Your task to perform on an android device: stop showing notifications on the lock screen Image 0: 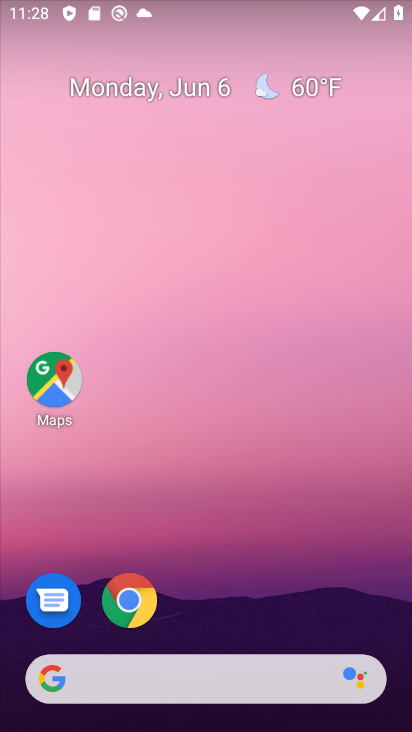
Step 0: drag from (215, 731) to (190, 31)
Your task to perform on an android device: stop showing notifications on the lock screen Image 1: 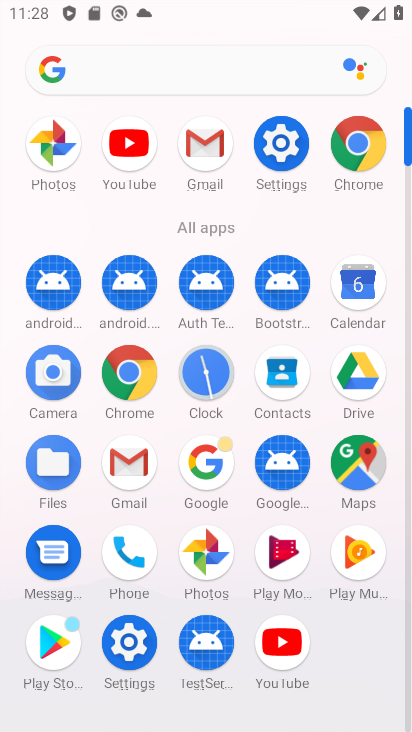
Step 1: click (137, 647)
Your task to perform on an android device: stop showing notifications on the lock screen Image 2: 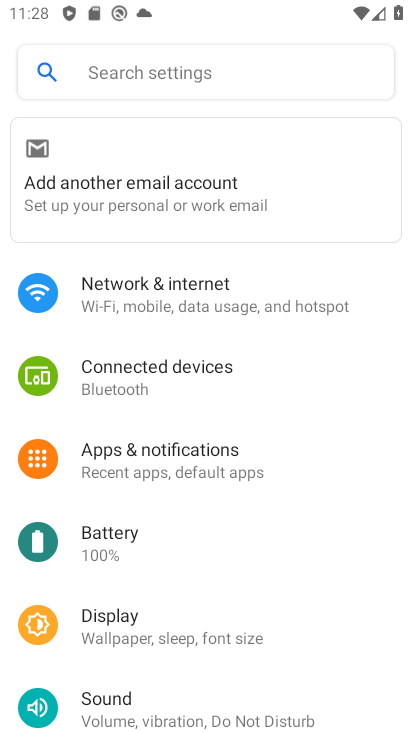
Step 2: click (145, 453)
Your task to perform on an android device: stop showing notifications on the lock screen Image 3: 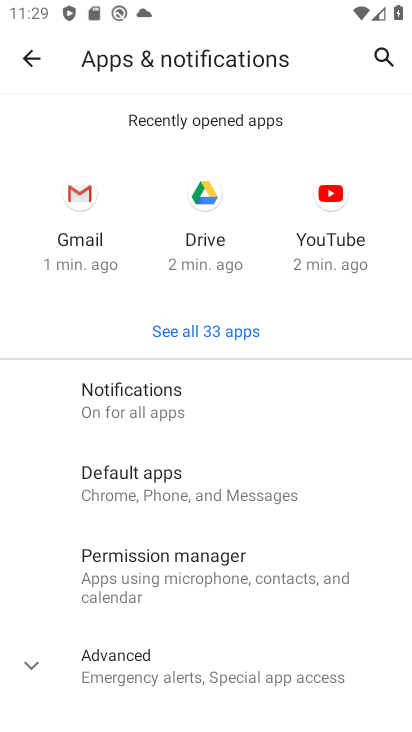
Step 3: click (107, 395)
Your task to perform on an android device: stop showing notifications on the lock screen Image 4: 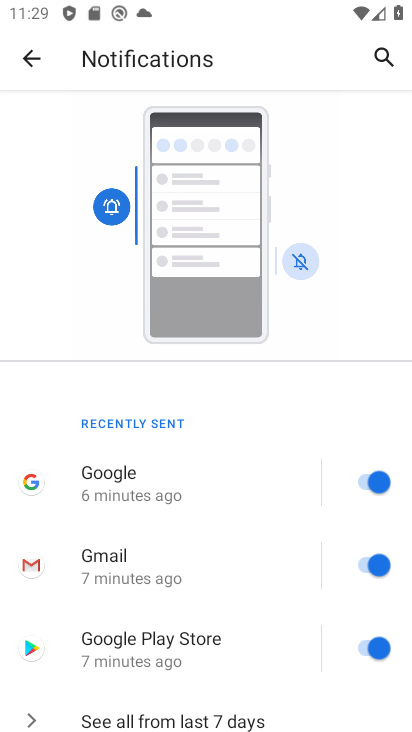
Step 4: drag from (148, 692) to (148, 278)
Your task to perform on an android device: stop showing notifications on the lock screen Image 5: 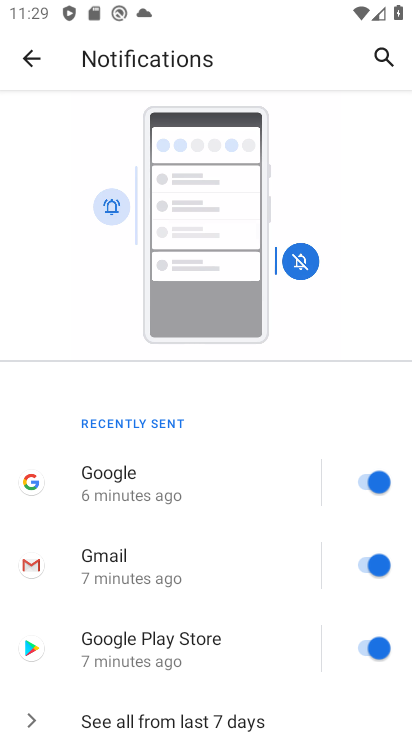
Step 5: drag from (156, 677) to (150, 320)
Your task to perform on an android device: stop showing notifications on the lock screen Image 6: 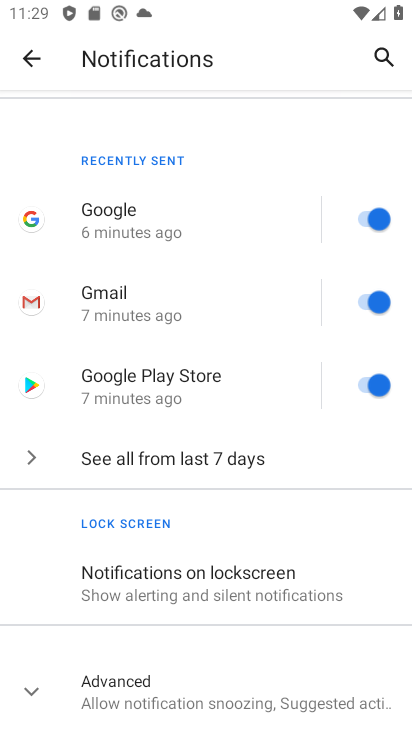
Step 6: click (172, 588)
Your task to perform on an android device: stop showing notifications on the lock screen Image 7: 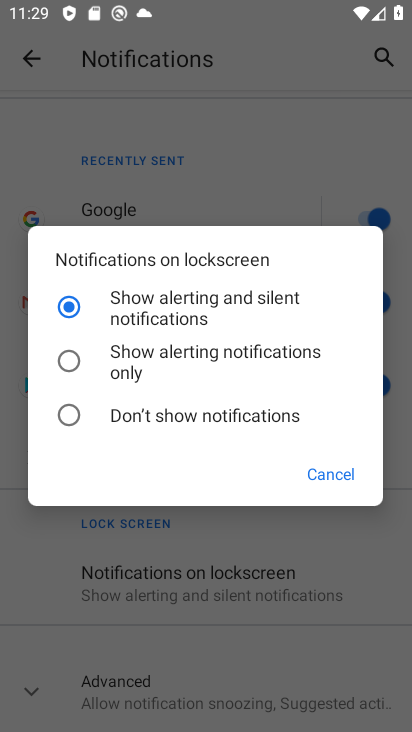
Step 7: click (66, 416)
Your task to perform on an android device: stop showing notifications on the lock screen Image 8: 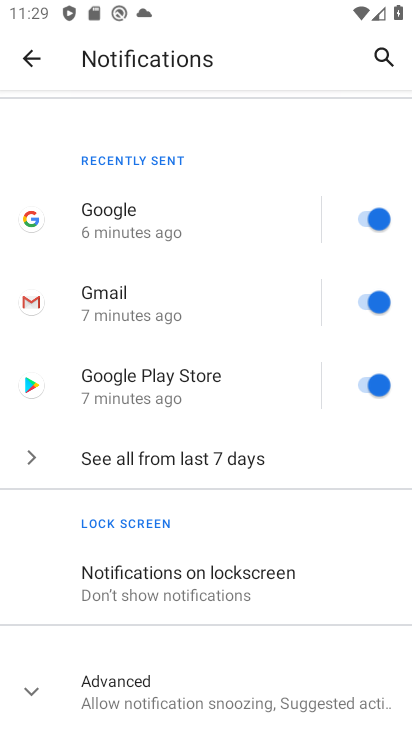
Step 8: task complete